Your task to perform on an android device: Open the map Image 0: 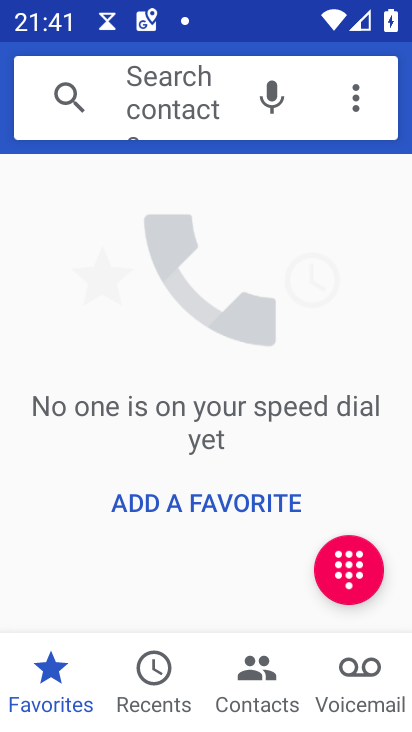
Step 0: press home button
Your task to perform on an android device: Open the map Image 1: 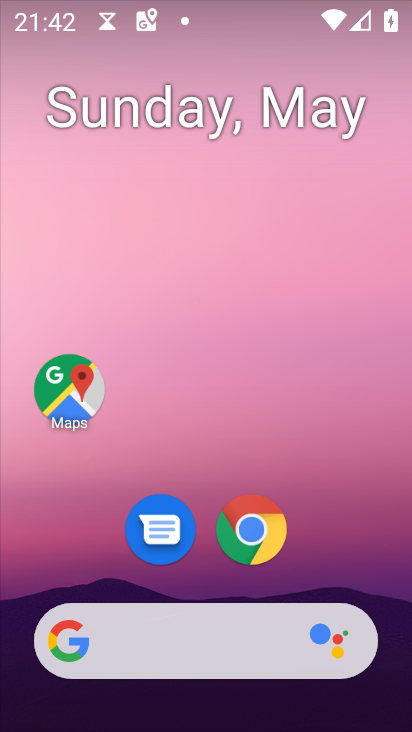
Step 1: click (77, 404)
Your task to perform on an android device: Open the map Image 2: 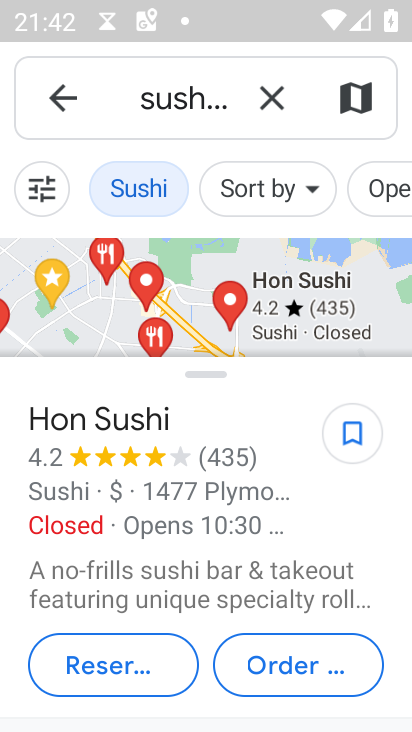
Step 2: task complete